Your task to perform on an android device: turn off wifi Image 0: 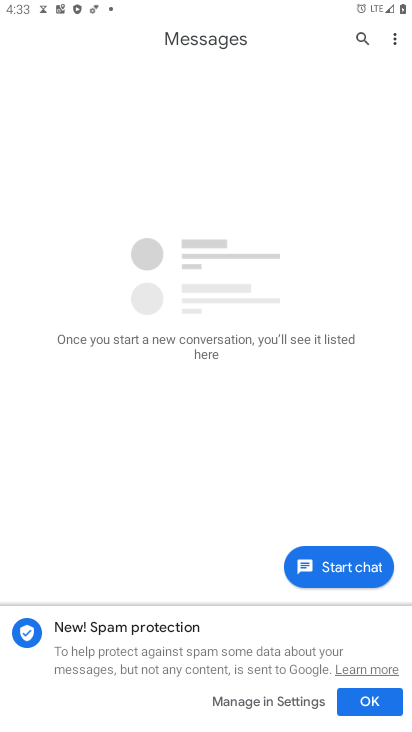
Step 0: press home button
Your task to perform on an android device: turn off wifi Image 1: 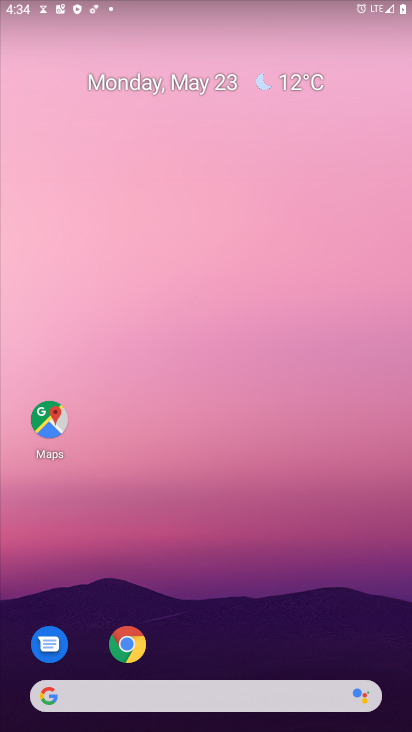
Step 1: drag from (200, 635) to (151, 130)
Your task to perform on an android device: turn off wifi Image 2: 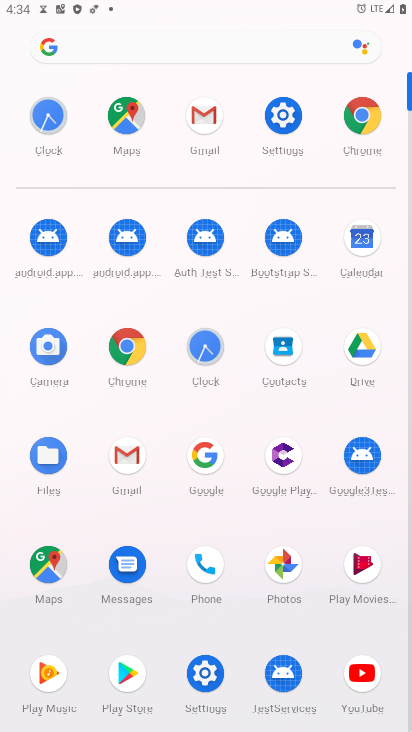
Step 2: click (292, 128)
Your task to perform on an android device: turn off wifi Image 3: 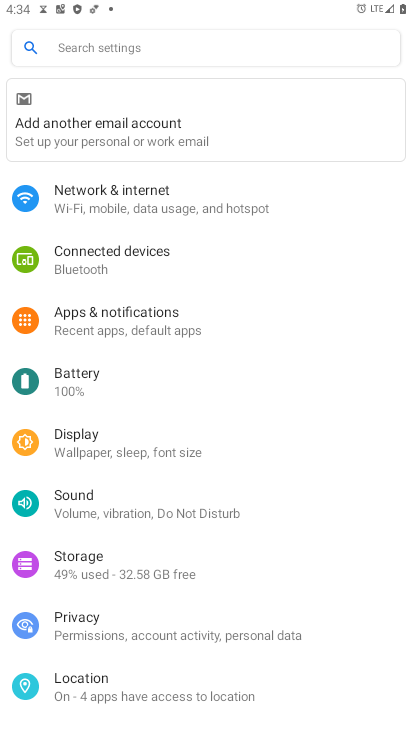
Step 3: click (248, 203)
Your task to perform on an android device: turn off wifi Image 4: 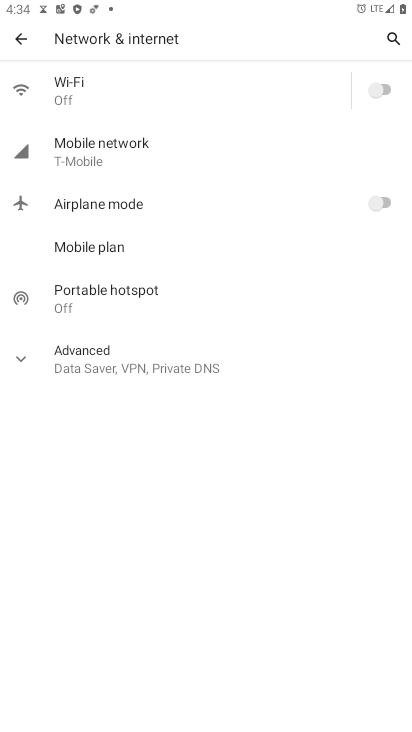
Step 4: task complete